Your task to perform on an android device: turn off wifi Image 0: 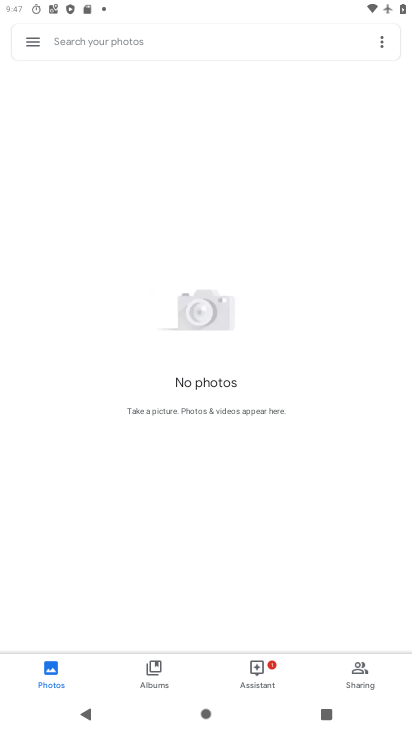
Step 0: press home button
Your task to perform on an android device: turn off wifi Image 1: 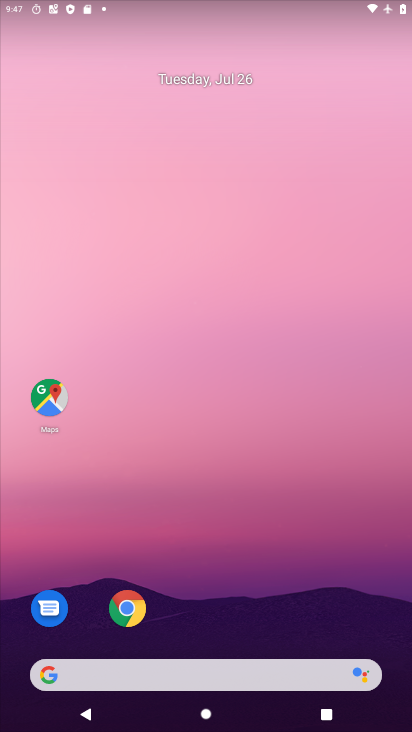
Step 1: drag from (181, 579) to (148, 20)
Your task to perform on an android device: turn off wifi Image 2: 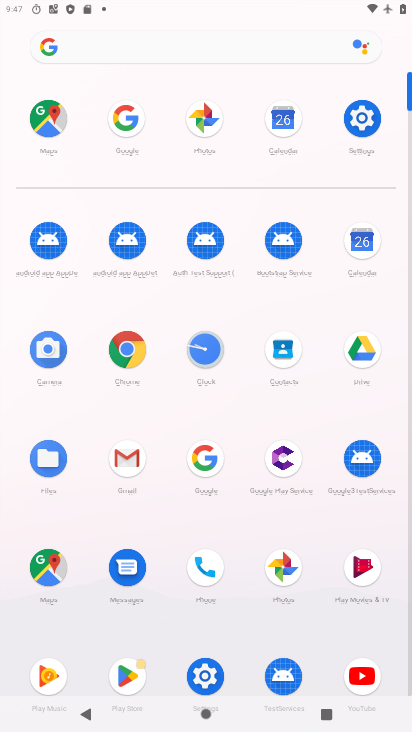
Step 2: click (359, 136)
Your task to perform on an android device: turn off wifi Image 3: 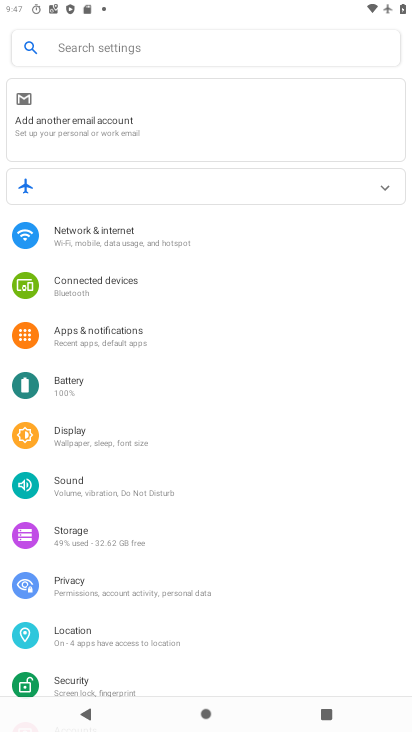
Step 3: click (108, 245)
Your task to perform on an android device: turn off wifi Image 4: 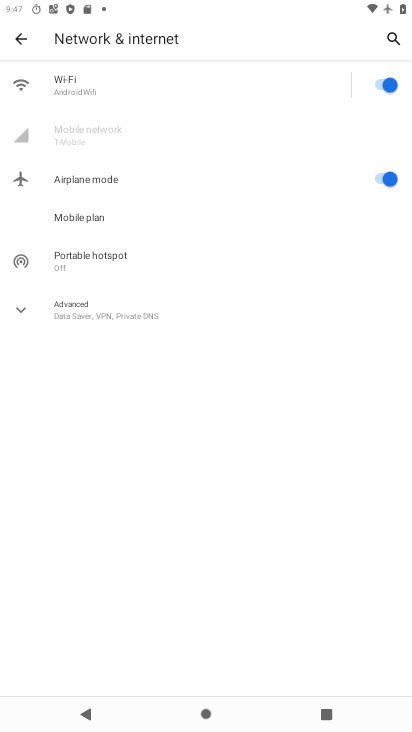
Step 4: click (374, 75)
Your task to perform on an android device: turn off wifi Image 5: 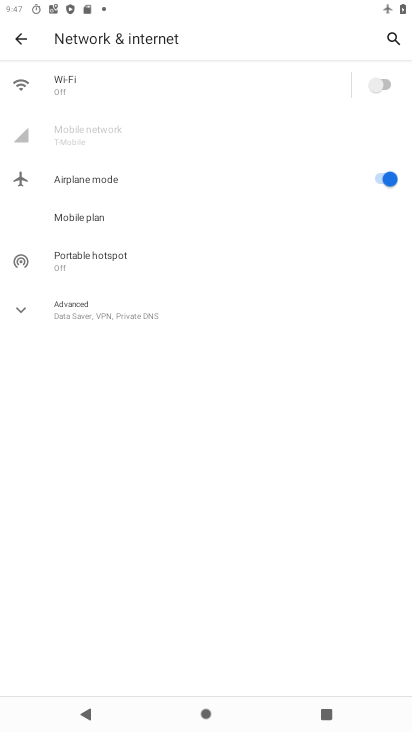
Step 5: task complete